Your task to perform on an android device: Open Chrome and go to settings Image 0: 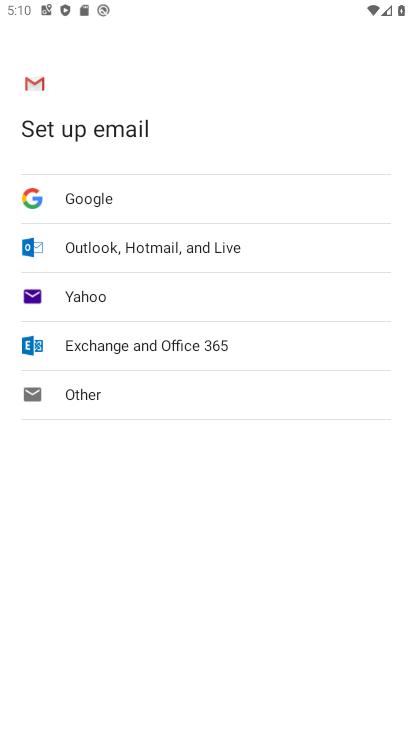
Step 0: press home button
Your task to perform on an android device: Open Chrome and go to settings Image 1: 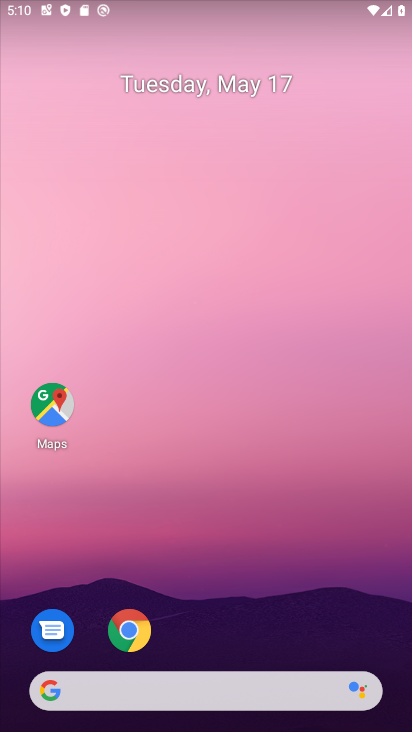
Step 1: drag from (308, 612) to (322, 97)
Your task to perform on an android device: Open Chrome and go to settings Image 2: 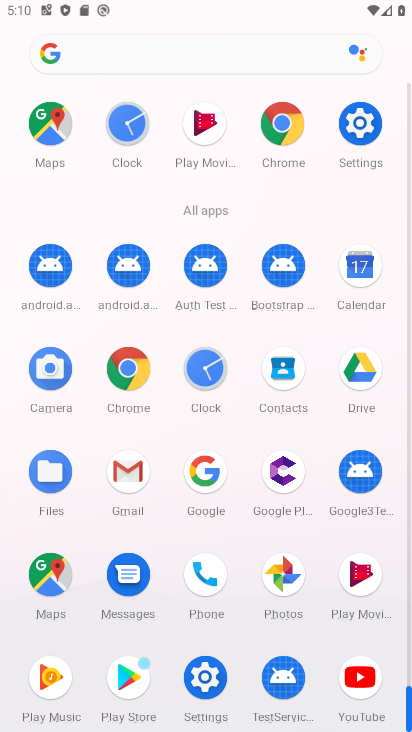
Step 2: click (125, 375)
Your task to perform on an android device: Open Chrome and go to settings Image 3: 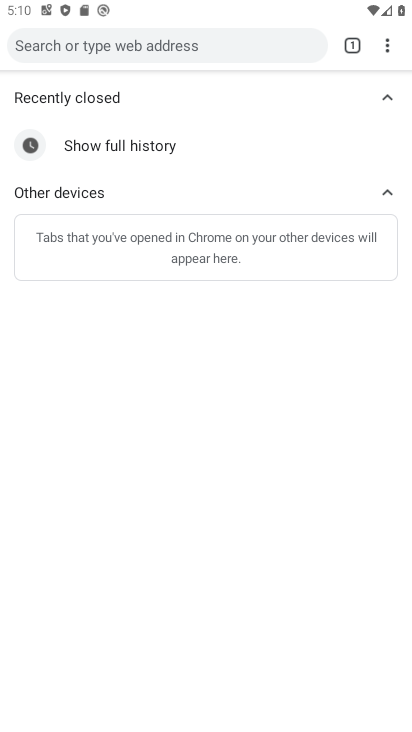
Step 3: task complete